Your task to perform on an android device: toggle pop-ups in chrome Image 0: 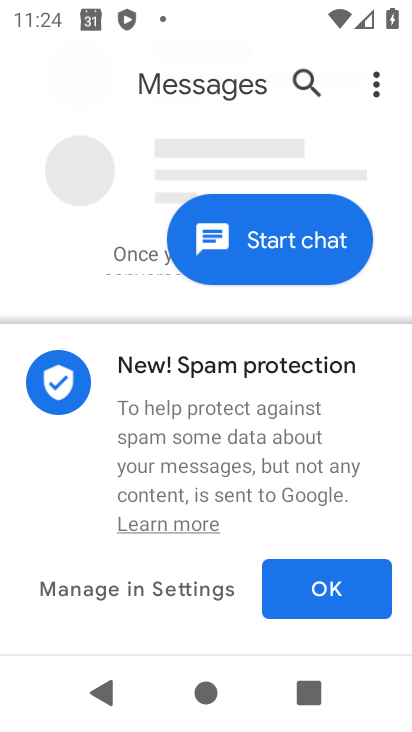
Step 0: press back button
Your task to perform on an android device: toggle pop-ups in chrome Image 1: 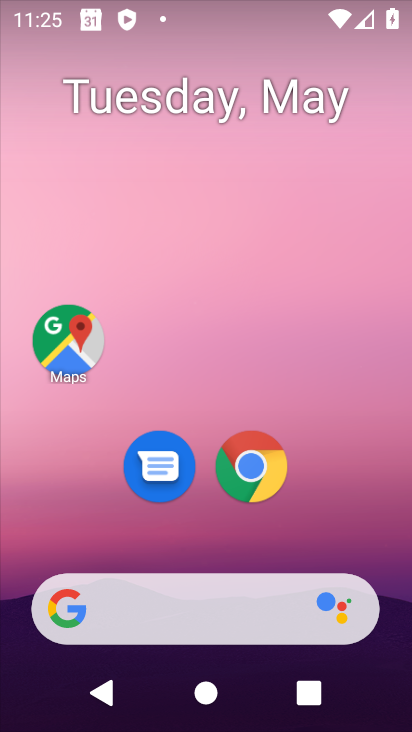
Step 1: click (252, 471)
Your task to perform on an android device: toggle pop-ups in chrome Image 2: 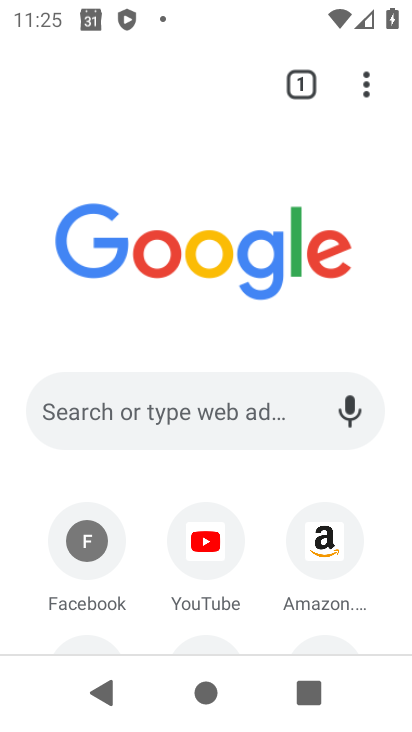
Step 2: drag from (365, 75) to (99, 515)
Your task to perform on an android device: toggle pop-ups in chrome Image 3: 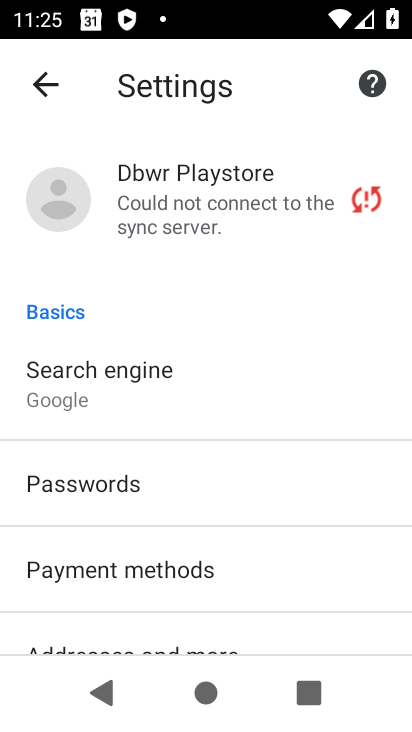
Step 3: drag from (111, 584) to (219, 178)
Your task to perform on an android device: toggle pop-ups in chrome Image 4: 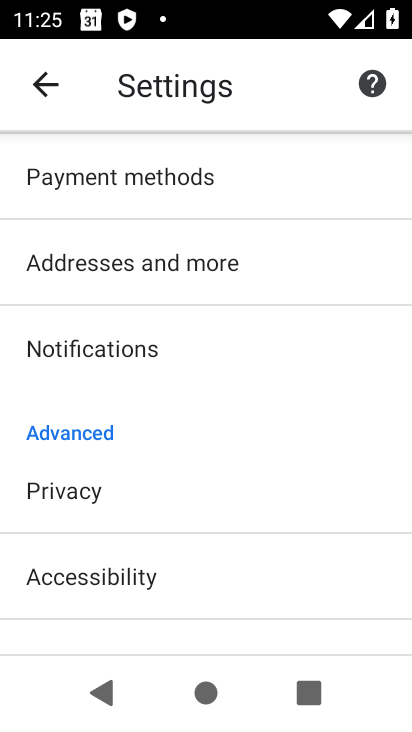
Step 4: drag from (151, 589) to (248, 204)
Your task to perform on an android device: toggle pop-ups in chrome Image 5: 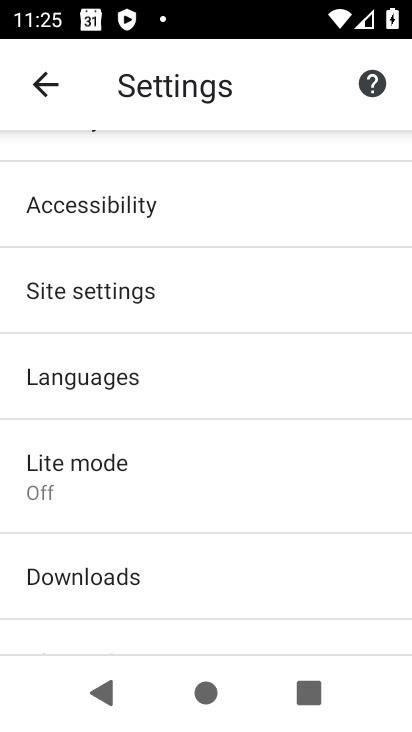
Step 5: click (137, 376)
Your task to perform on an android device: toggle pop-ups in chrome Image 6: 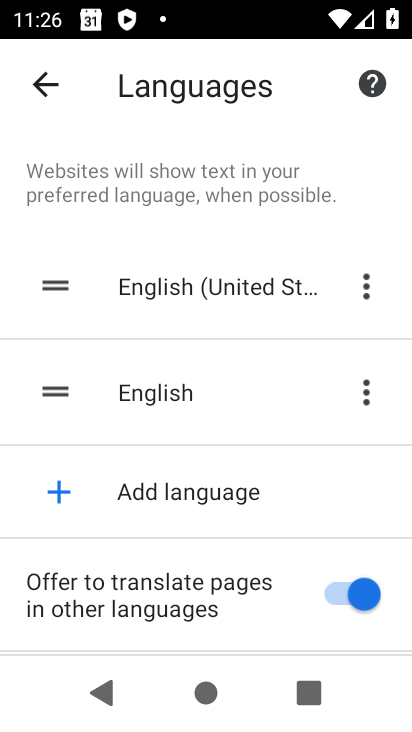
Step 6: click (44, 74)
Your task to perform on an android device: toggle pop-ups in chrome Image 7: 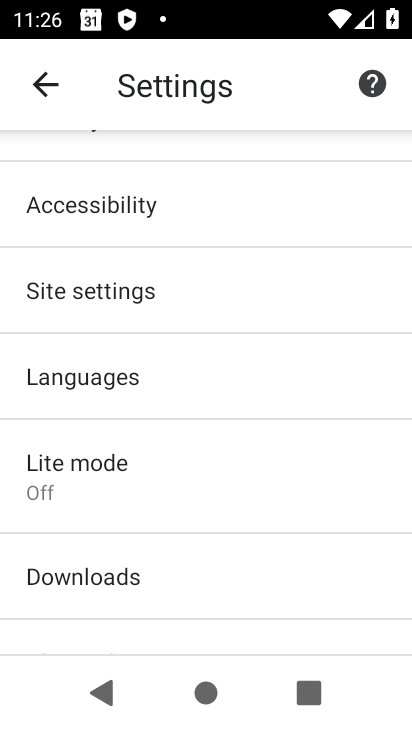
Step 7: click (90, 313)
Your task to perform on an android device: toggle pop-ups in chrome Image 8: 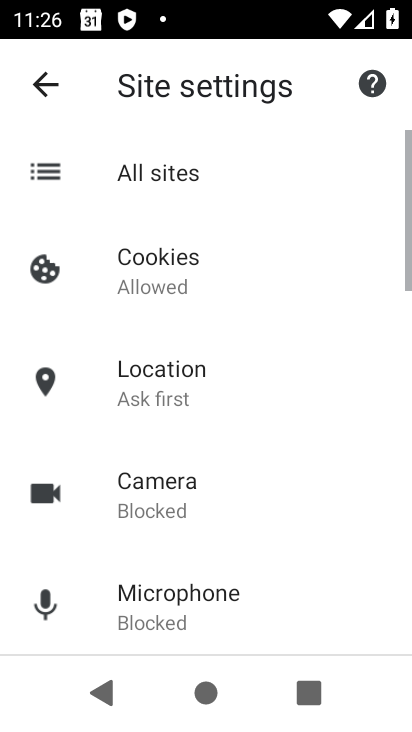
Step 8: drag from (180, 600) to (265, 103)
Your task to perform on an android device: toggle pop-ups in chrome Image 9: 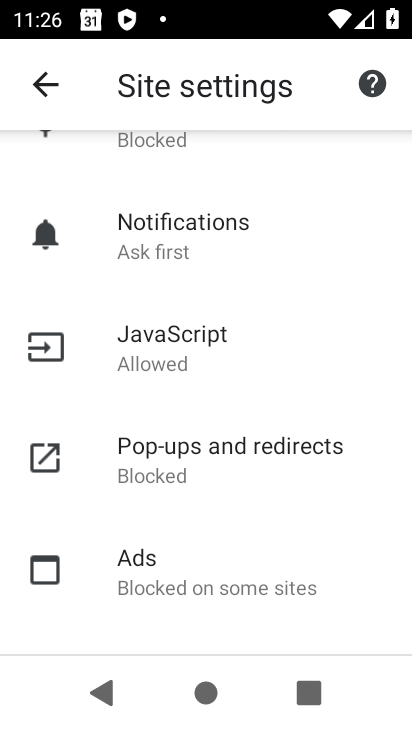
Step 9: click (166, 449)
Your task to perform on an android device: toggle pop-ups in chrome Image 10: 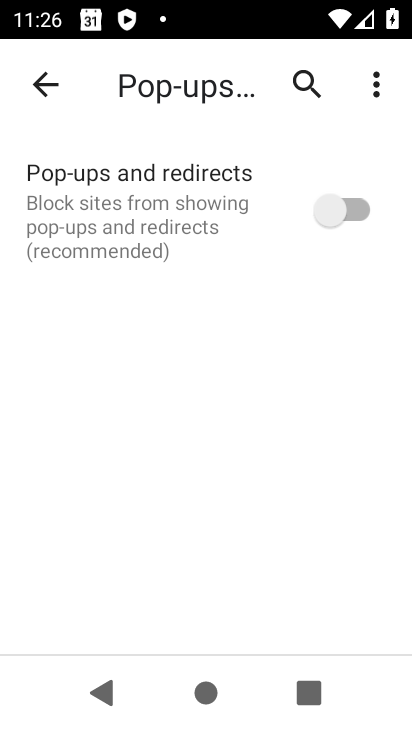
Step 10: click (339, 200)
Your task to perform on an android device: toggle pop-ups in chrome Image 11: 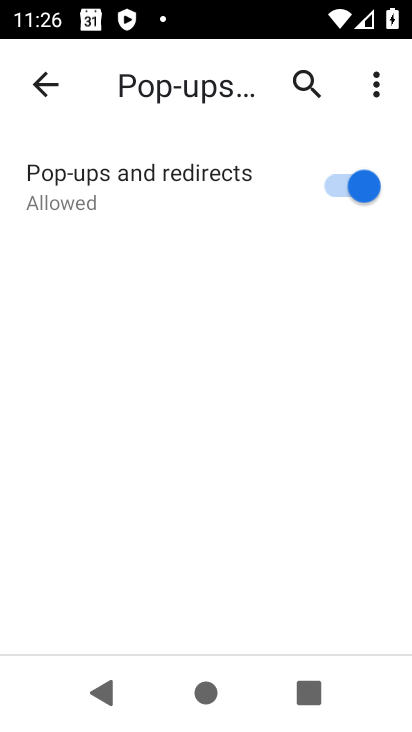
Step 11: task complete